Your task to perform on an android device: Open calendar and show me the fourth week of next month Image 0: 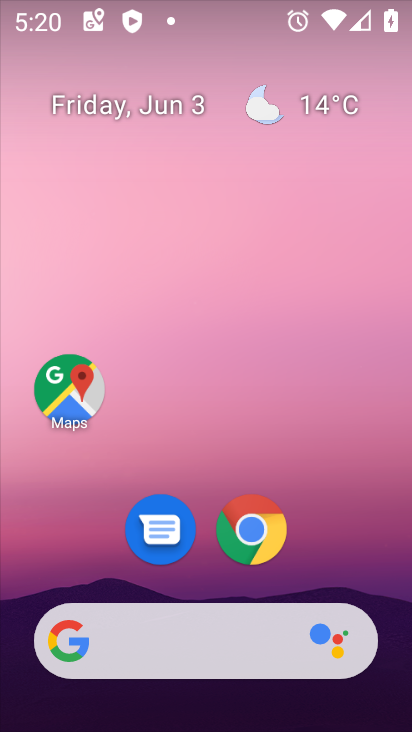
Step 0: press home button
Your task to perform on an android device: Open calendar and show me the fourth week of next month Image 1: 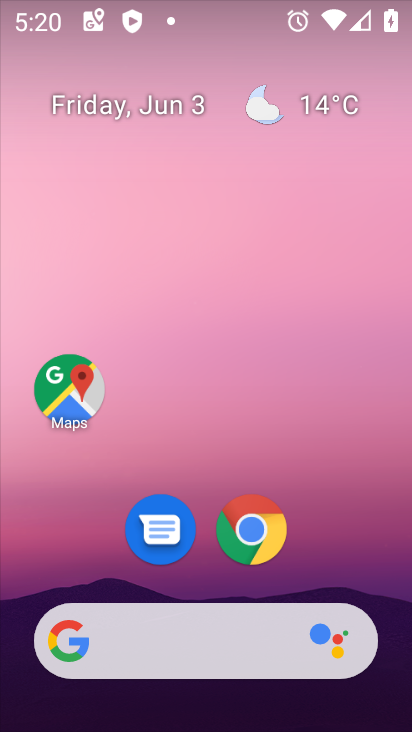
Step 1: drag from (208, 581) to (265, 37)
Your task to perform on an android device: Open calendar and show me the fourth week of next month Image 2: 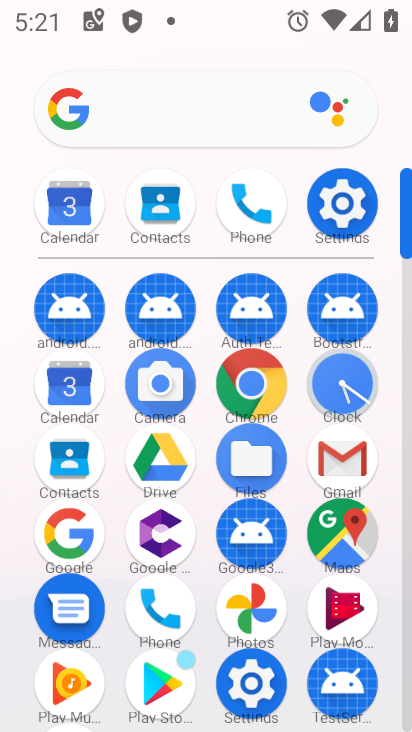
Step 2: click (62, 377)
Your task to perform on an android device: Open calendar and show me the fourth week of next month Image 3: 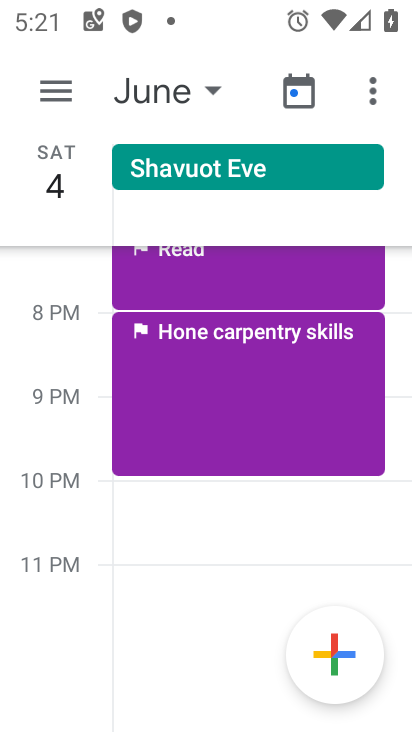
Step 3: click (204, 83)
Your task to perform on an android device: Open calendar and show me the fourth week of next month Image 4: 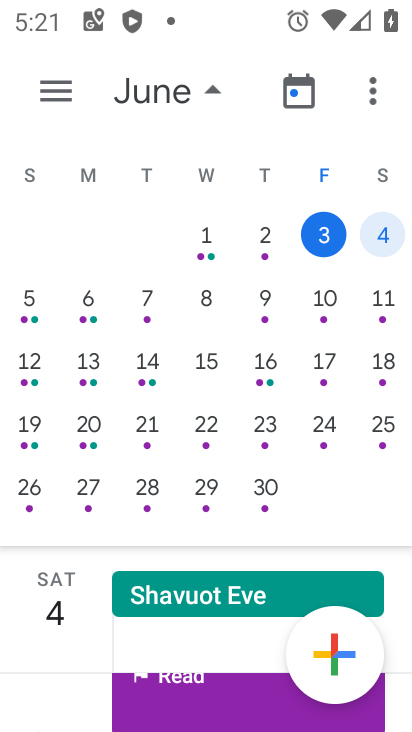
Step 4: drag from (386, 360) to (21, 454)
Your task to perform on an android device: Open calendar and show me the fourth week of next month Image 5: 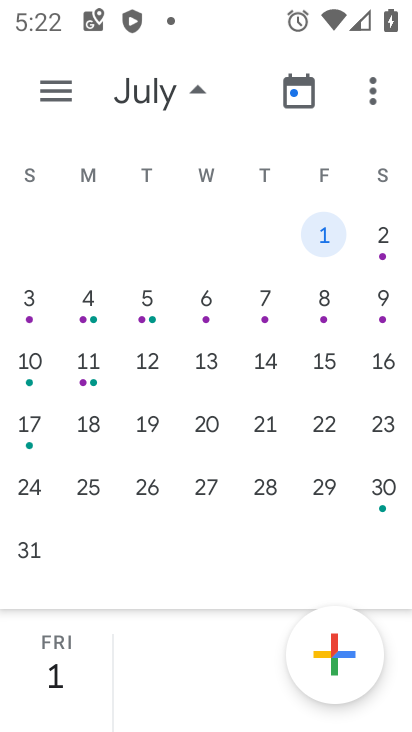
Step 5: click (29, 475)
Your task to perform on an android device: Open calendar and show me the fourth week of next month Image 6: 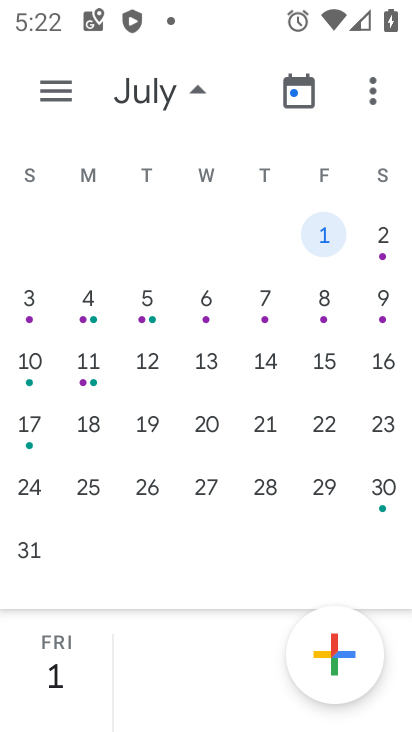
Step 6: click (28, 493)
Your task to perform on an android device: Open calendar and show me the fourth week of next month Image 7: 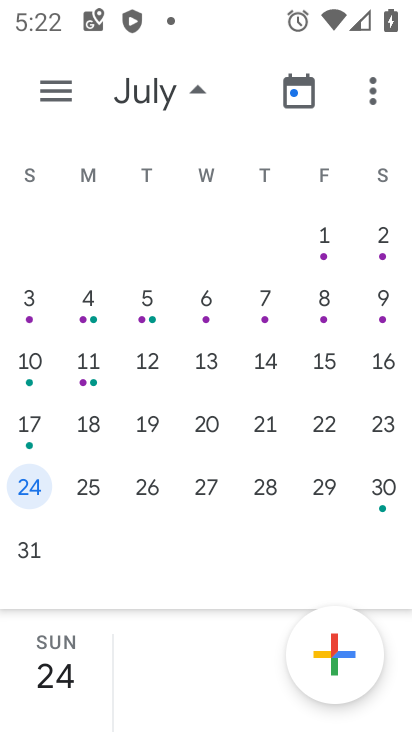
Step 7: click (41, 491)
Your task to perform on an android device: Open calendar and show me the fourth week of next month Image 8: 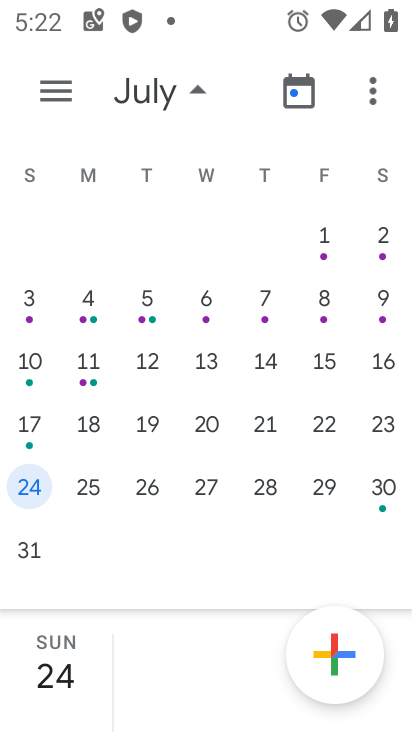
Step 8: click (192, 80)
Your task to perform on an android device: Open calendar and show me the fourth week of next month Image 9: 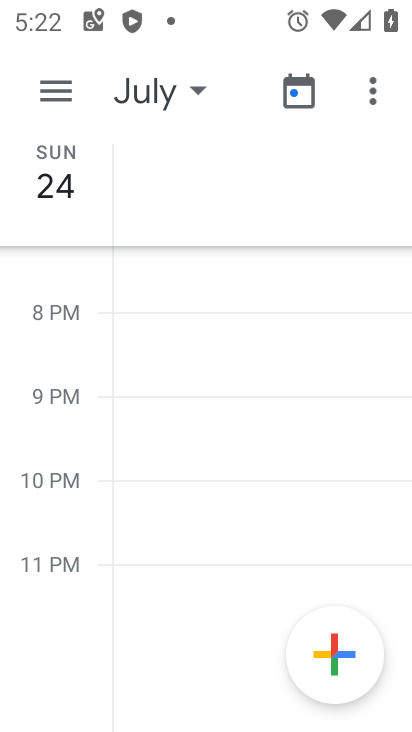
Step 9: click (97, 202)
Your task to perform on an android device: Open calendar and show me the fourth week of next month Image 10: 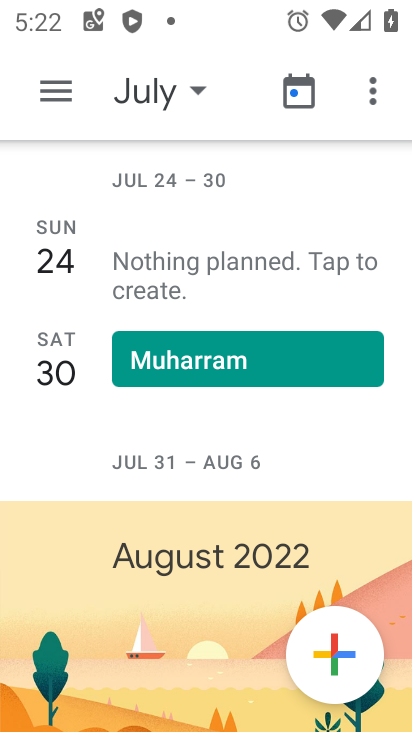
Step 10: task complete